Your task to perform on an android device: turn on location history Image 0: 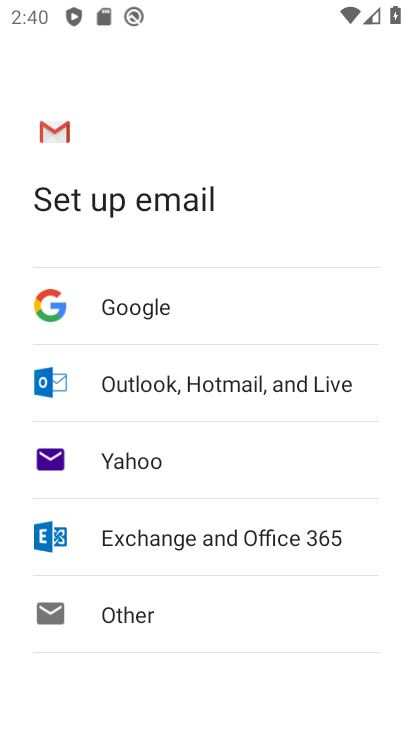
Step 0: press back button
Your task to perform on an android device: turn on location history Image 1: 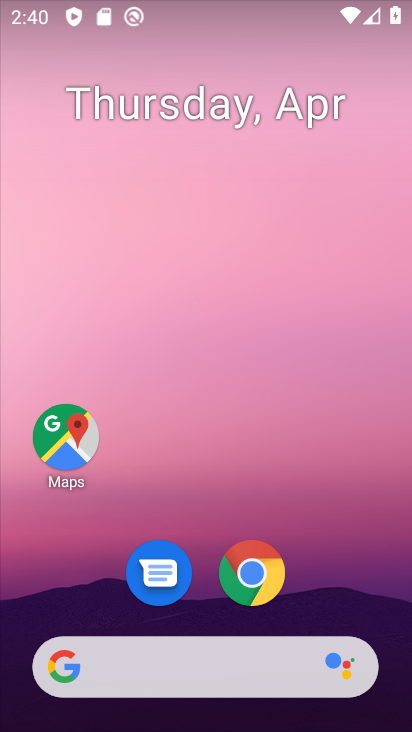
Step 1: drag from (346, 560) to (256, 7)
Your task to perform on an android device: turn on location history Image 2: 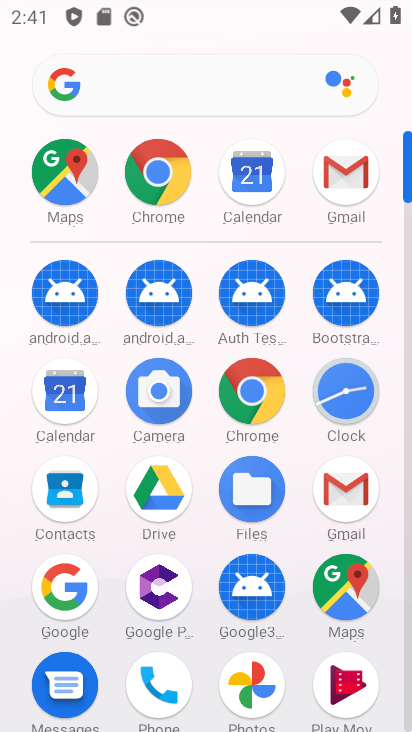
Step 2: click (408, 721)
Your task to perform on an android device: turn on location history Image 3: 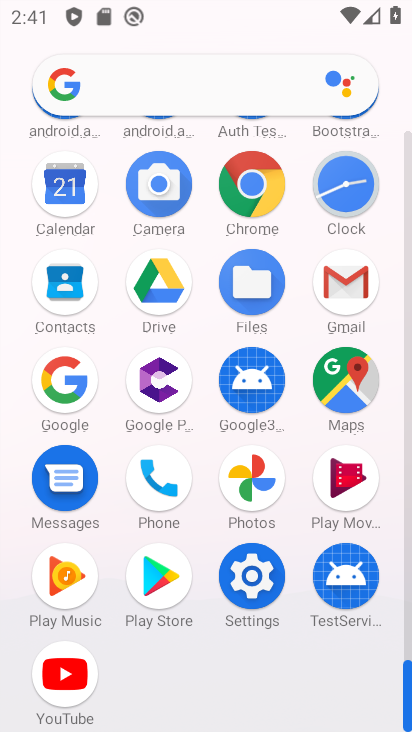
Step 3: click (256, 599)
Your task to perform on an android device: turn on location history Image 4: 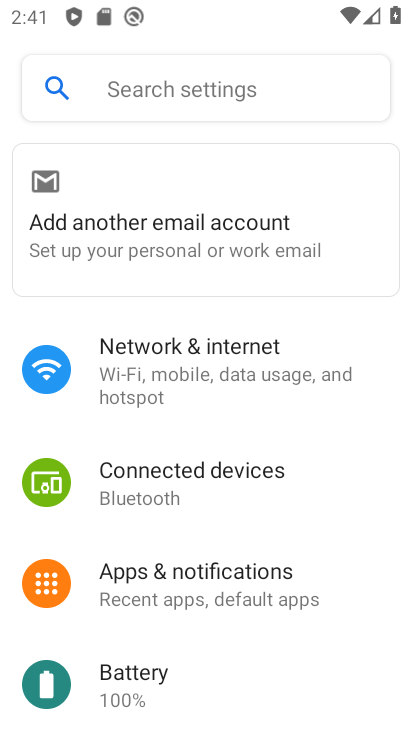
Step 4: drag from (197, 660) to (186, 222)
Your task to perform on an android device: turn on location history Image 5: 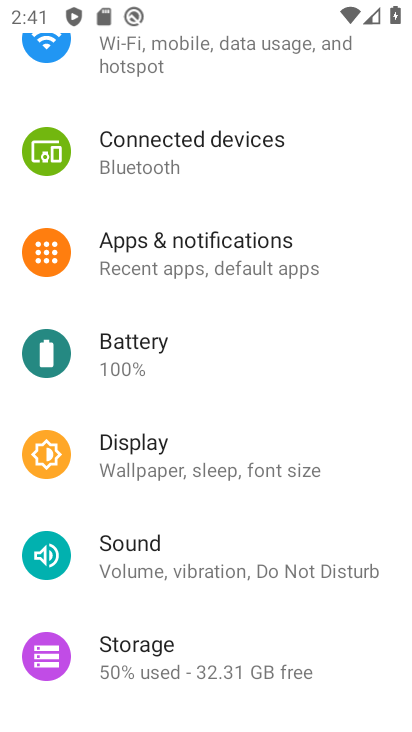
Step 5: drag from (176, 661) to (254, 148)
Your task to perform on an android device: turn on location history Image 6: 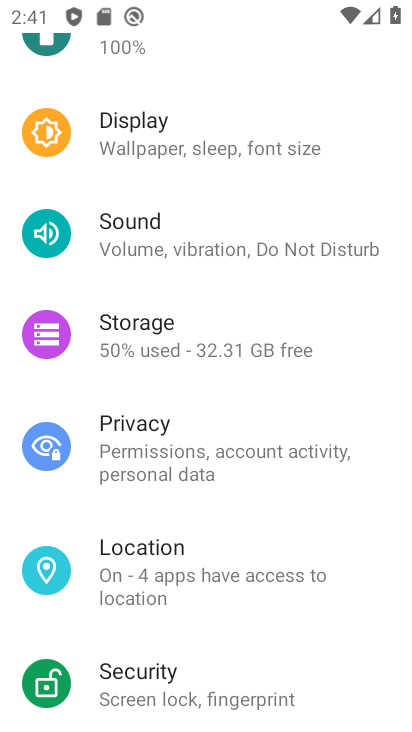
Step 6: click (145, 562)
Your task to perform on an android device: turn on location history Image 7: 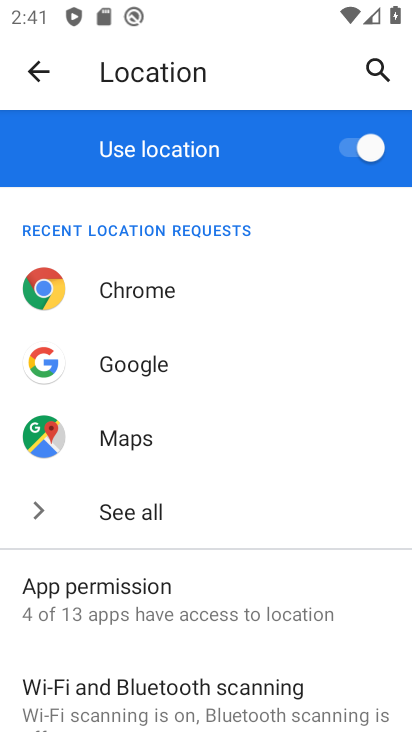
Step 7: drag from (139, 607) to (237, 167)
Your task to perform on an android device: turn on location history Image 8: 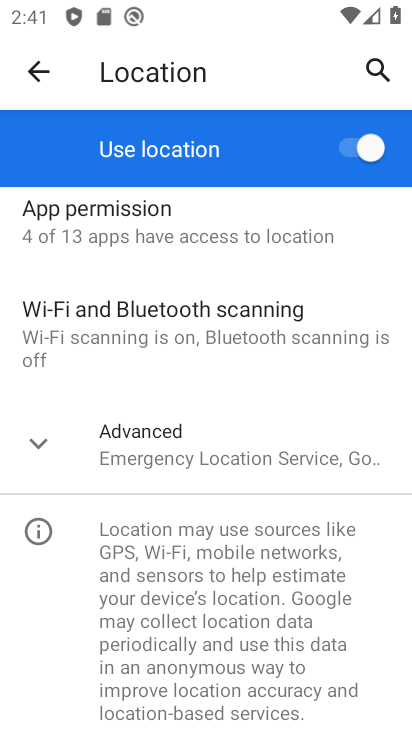
Step 8: click (28, 440)
Your task to perform on an android device: turn on location history Image 9: 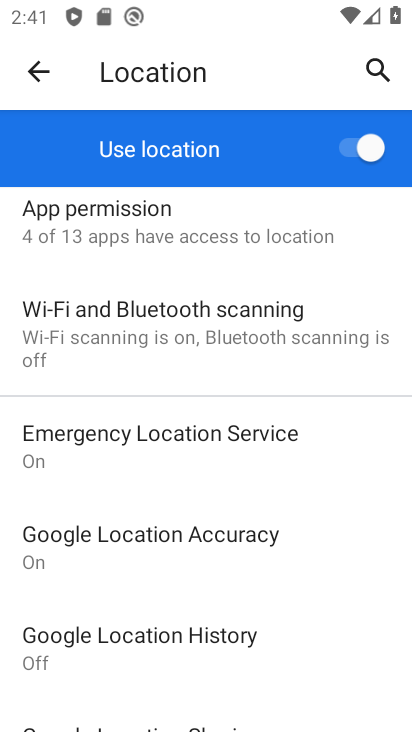
Step 9: click (176, 636)
Your task to perform on an android device: turn on location history Image 10: 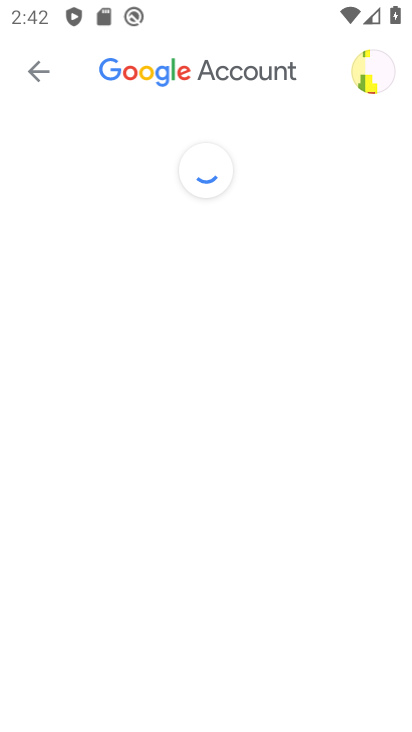
Step 10: task complete